Your task to perform on an android device: open app "LinkedIn" (install if not already installed), go to login, and select forgot password Image 0: 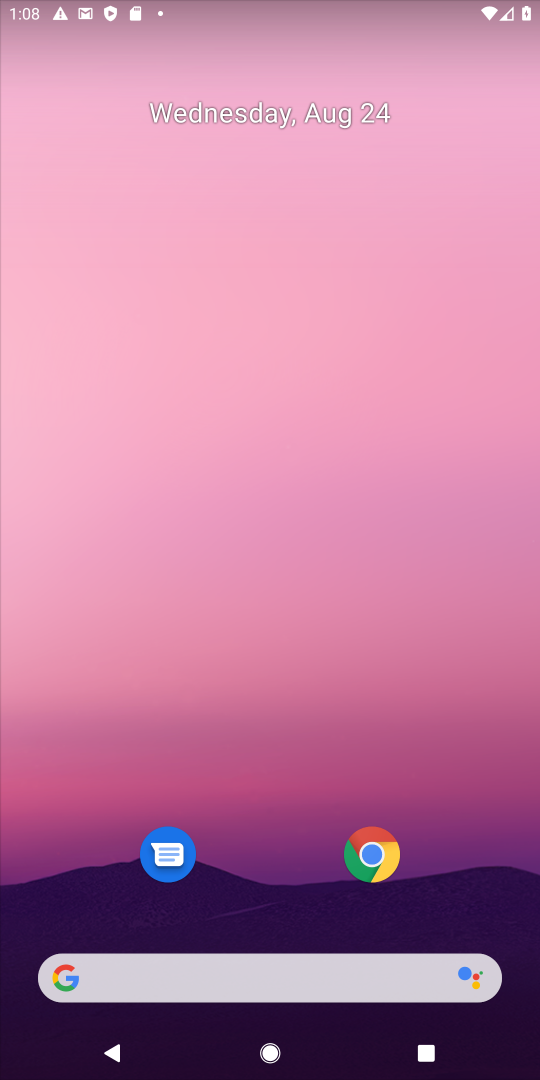
Step 0: press home button
Your task to perform on an android device: open app "LinkedIn" (install if not already installed), go to login, and select forgot password Image 1: 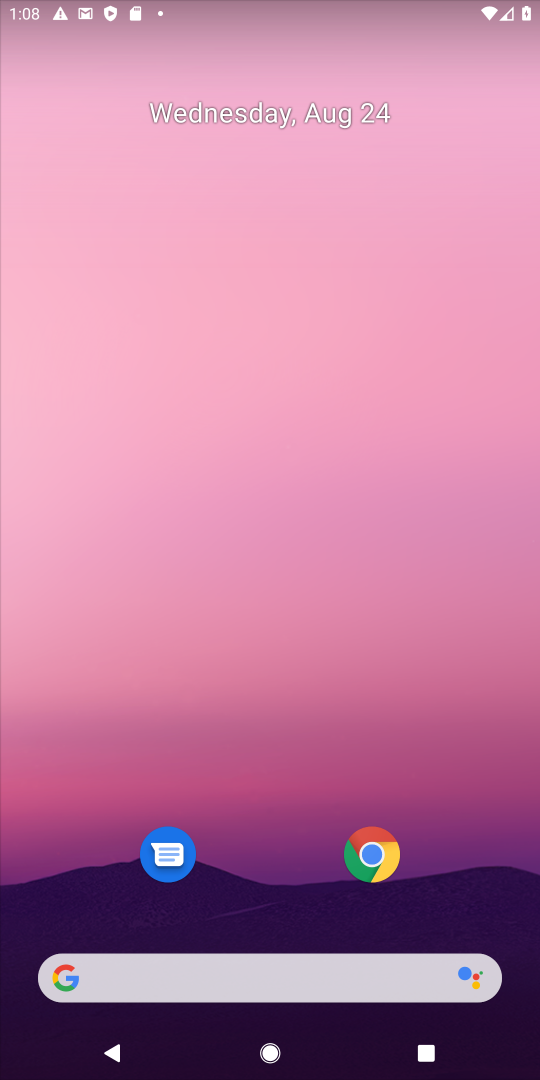
Step 1: drag from (446, 807) to (435, 102)
Your task to perform on an android device: open app "LinkedIn" (install if not already installed), go to login, and select forgot password Image 2: 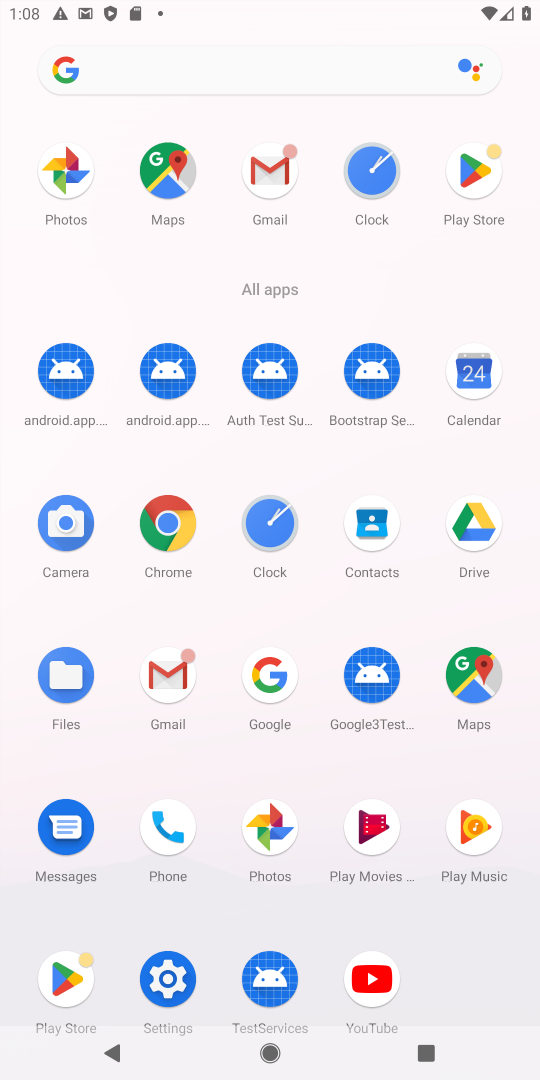
Step 2: click (476, 169)
Your task to perform on an android device: open app "LinkedIn" (install if not already installed), go to login, and select forgot password Image 3: 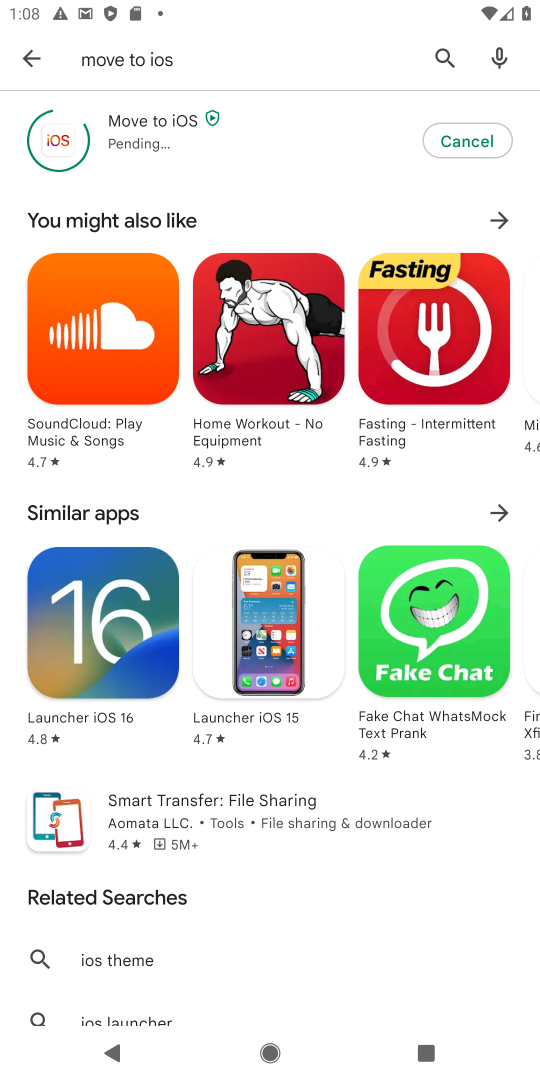
Step 3: press back button
Your task to perform on an android device: open app "LinkedIn" (install if not already installed), go to login, and select forgot password Image 4: 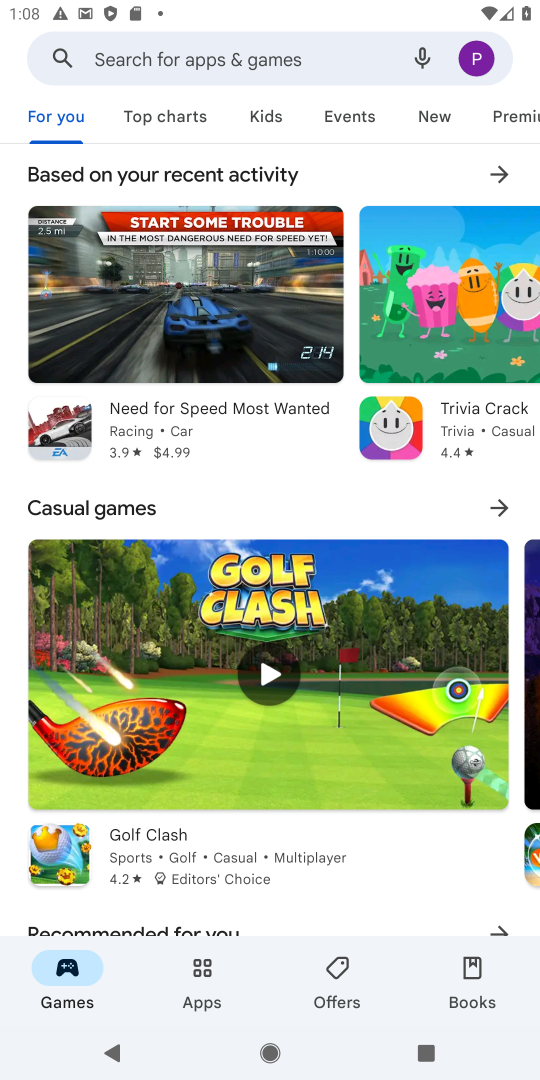
Step 4: click (199, 42)
Your task to perform on an android device: open app "LinkedIn" (install if not already installed), go to login, and select forgot password Image 5: 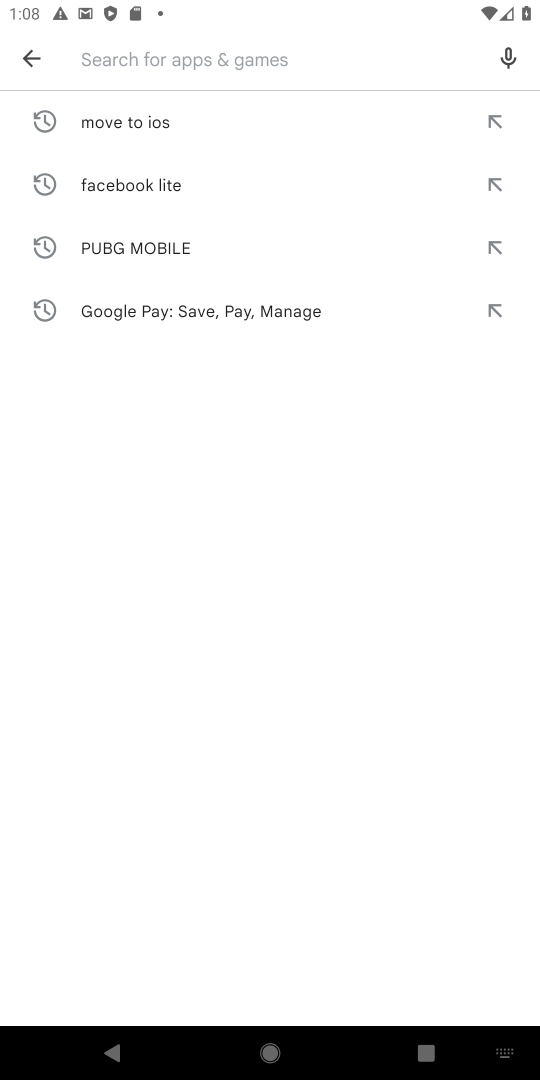
Step 5: press enter
Your task to perform on an android device: open app "LinkedIn" (install if not already installed), go to login, and select forgot password Image 6: 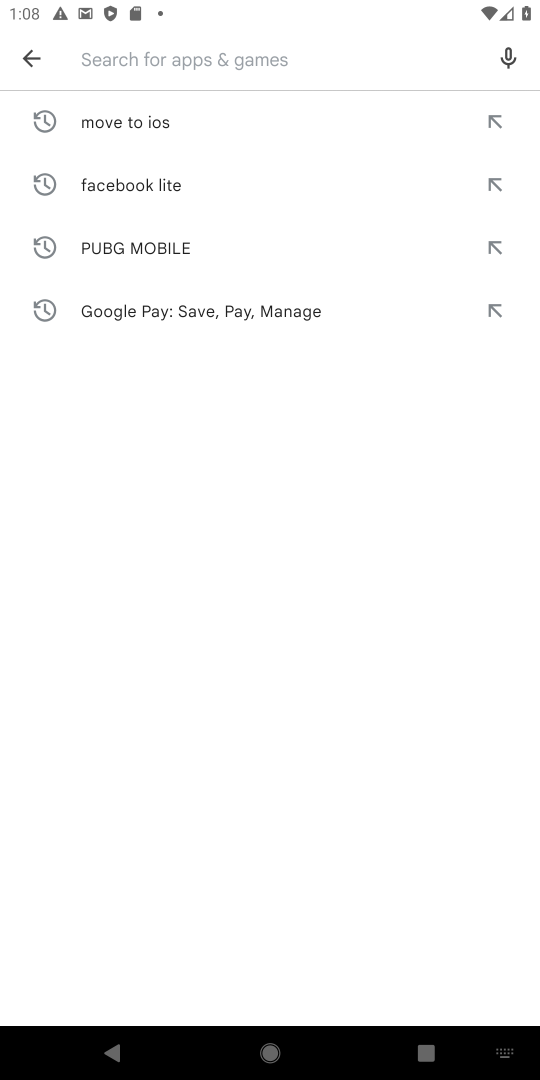
Step 6: type "linkedin"
Your task to perform on an android device: open app "LinkedIn" (install if not already installed), go to login, and select forgot password Image 7: 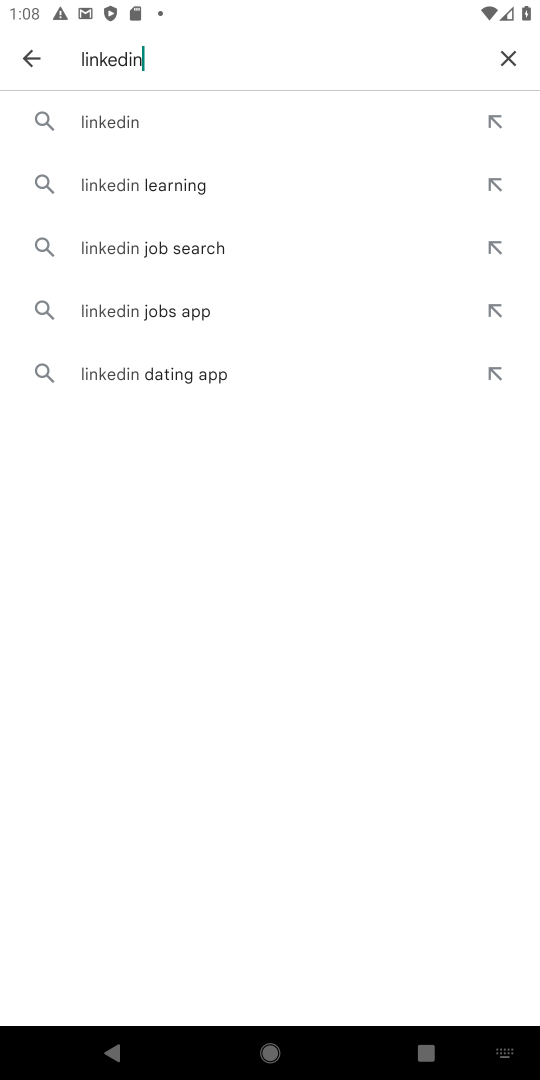
Step 7: click (88, 120)
Your task to perform on an android device: open app "LinkedIn" (install if not already installed), go to login, and select forgot password Image 8: 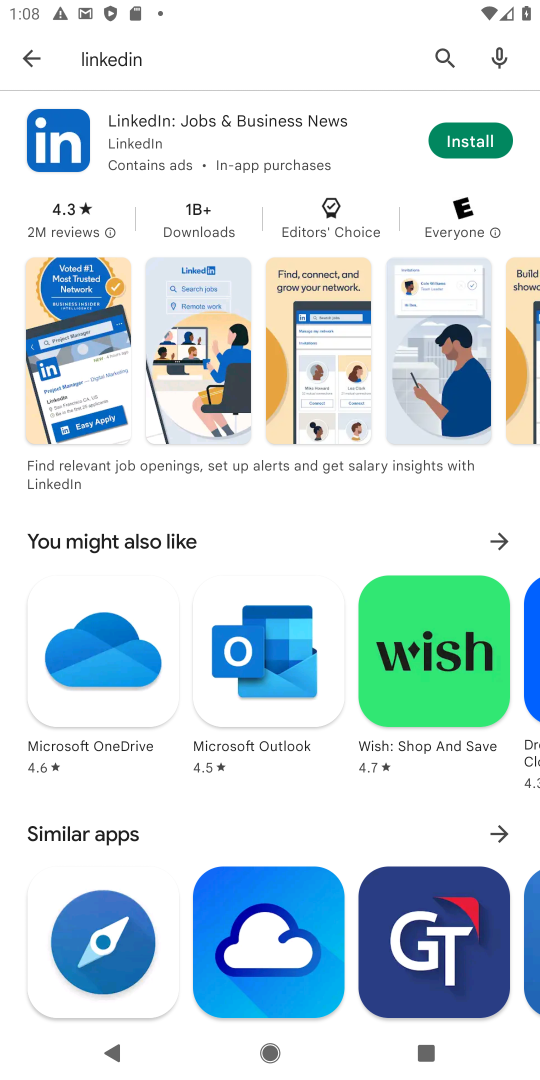
Step 8: click (467, 134)
Your task to perform on an android device: open app "LinkedIn" (install if not already installed), go to login, and select forgot password Image 9: 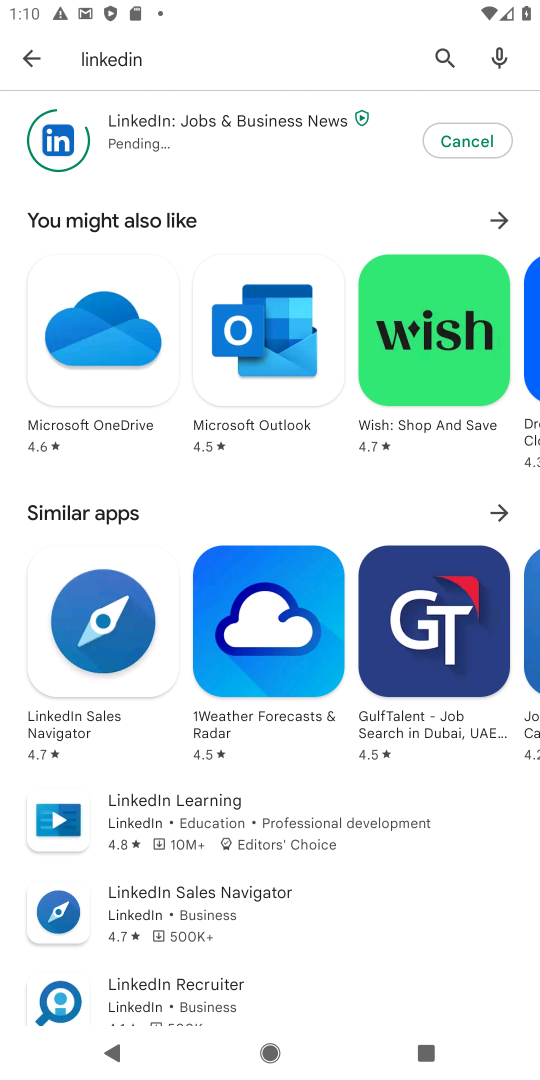
Step 9: task complete